Your task to perform on an android device: Check the weather Image 0: 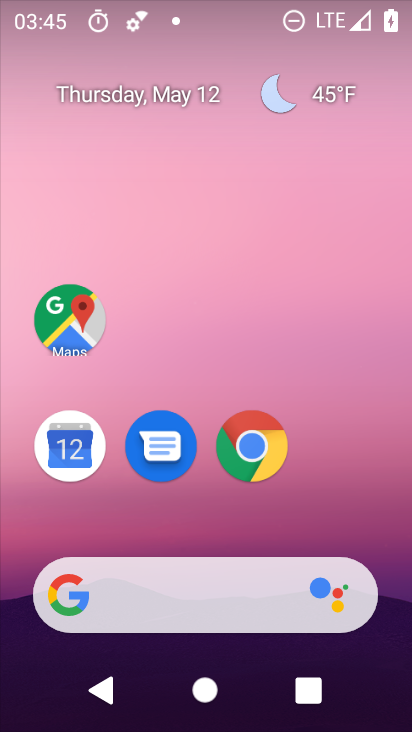
Step 0: drag from (176, 530) to (196, 223)
Your task to perform on an android device: Check the weather Image 1: 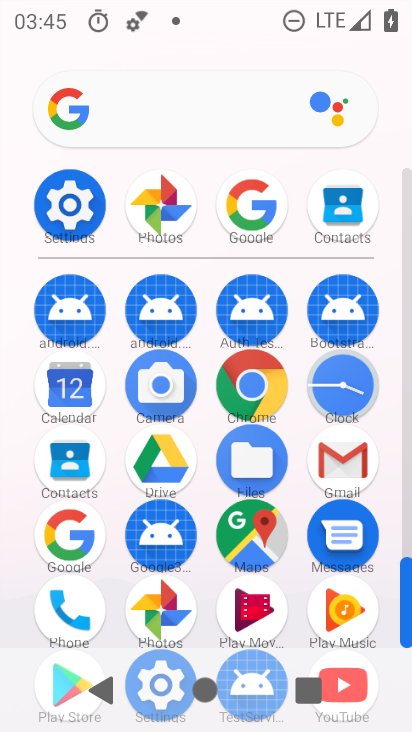
Step 1: click (89, 537)
Your task to perform on an android device: Check the weather Image 2: 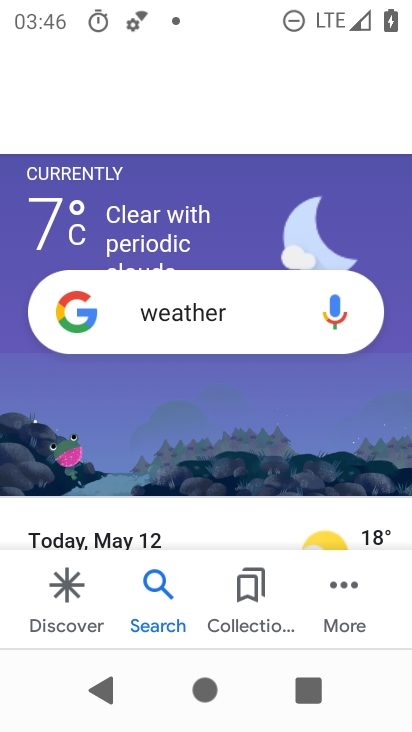
Step 2: task complete